Your task to perform on an android device: move an email to a new category in the gmail app Image 0: 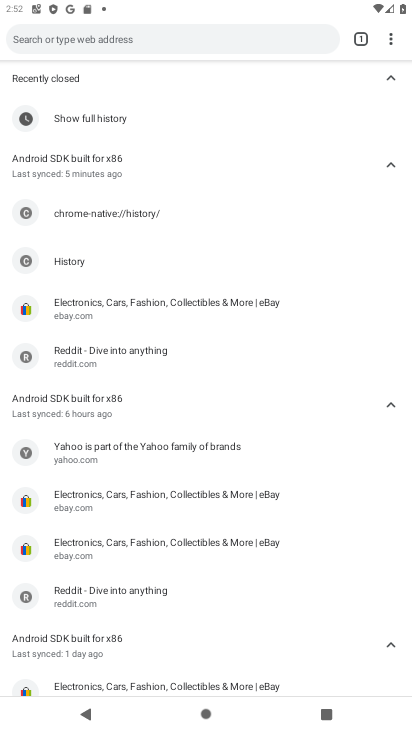
Step 0: press home button
Your task to perform on an android device: move an email to a new category in the gmail app Image 1: 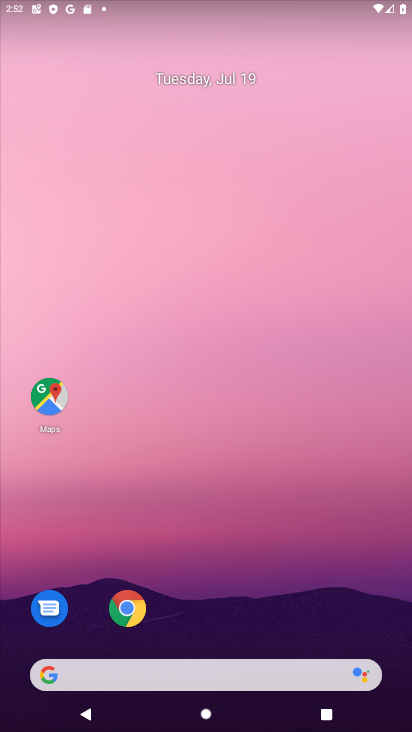
Step 1: drag from (345, 611) to (183, 49)
Your task to perform on an android device: move an email to a new category in the gmail app Image 2: 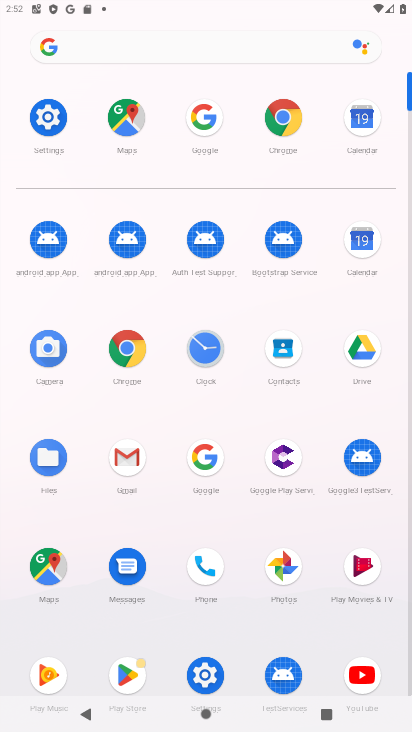
Step 2: click (124, 456)
Your task to perform on an android device: move an email to a new category in the gmail app Image 3: 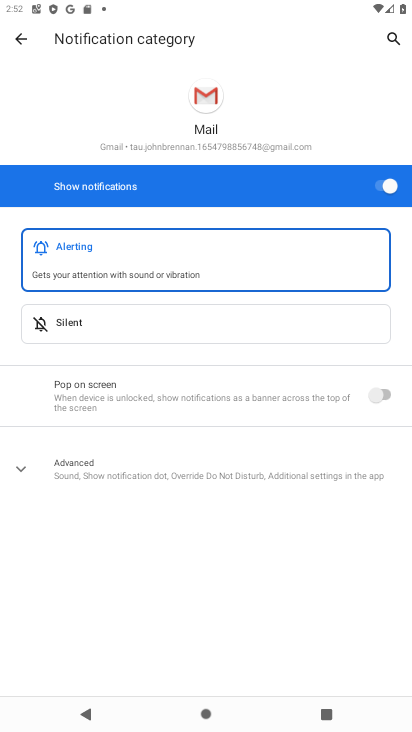
Step 3: click (23, 33)
Your task to perform on an android device: move an email to a new category in the gmail app Image 4: 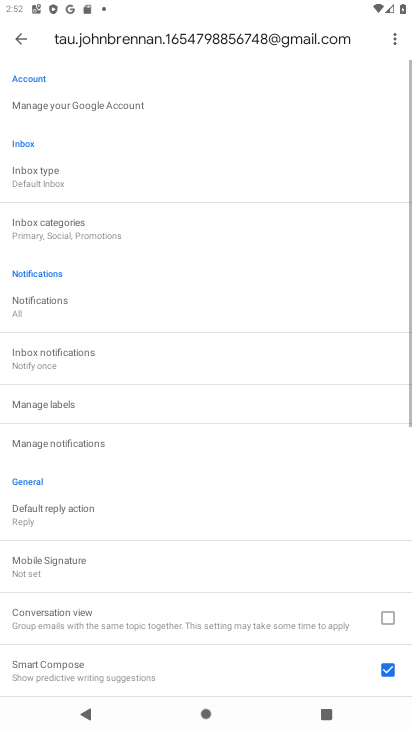
Step 4: click (24, 36)
Your task to perform on an android device: move an email to a new category in the gmail app Image 5: 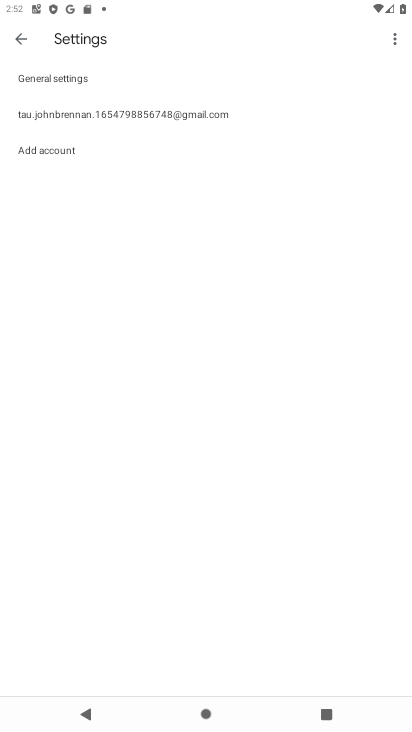
Step 5: click (24, 36)
Your task to perform on an android device: move an email to a new category in the gmail app Image 6: 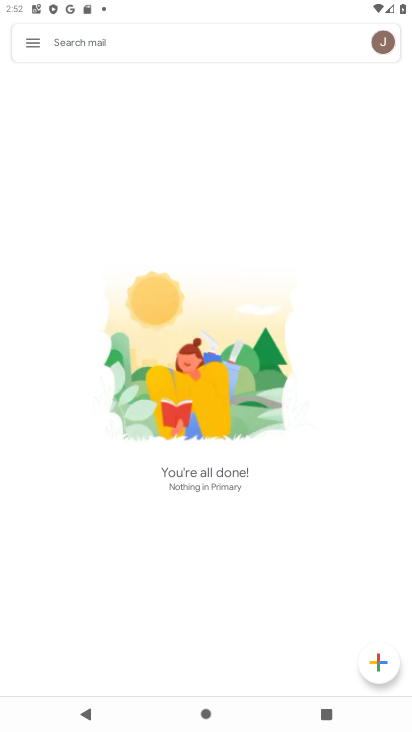
Step 6: click (24, 36)
Your task to perform on an android device: move an email to a new category in the gmail app Image 7: 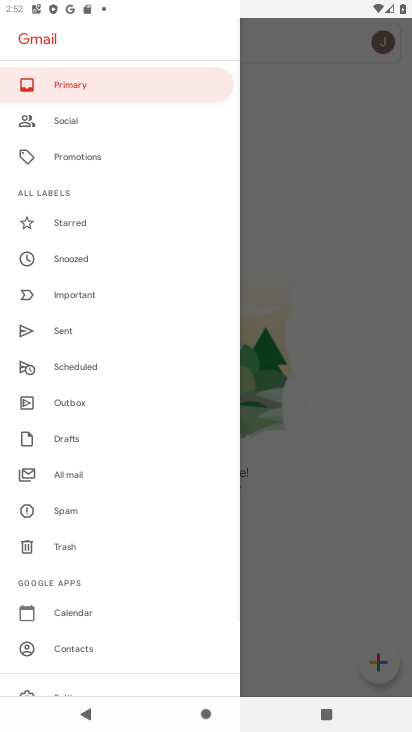
Step 7: click (82, 443)
Your task to perform on an android device: move an email to a new category in the gmail app Image 8: 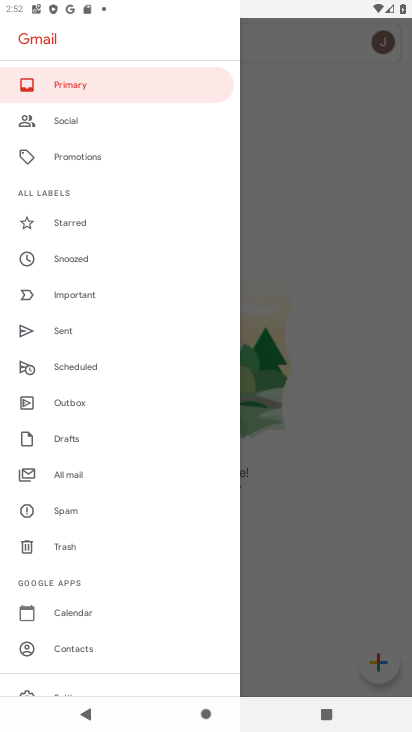
Step 8: click (63, 466)
Your task to perform on an android device: move an email to a new category in the gmail app Image 9: 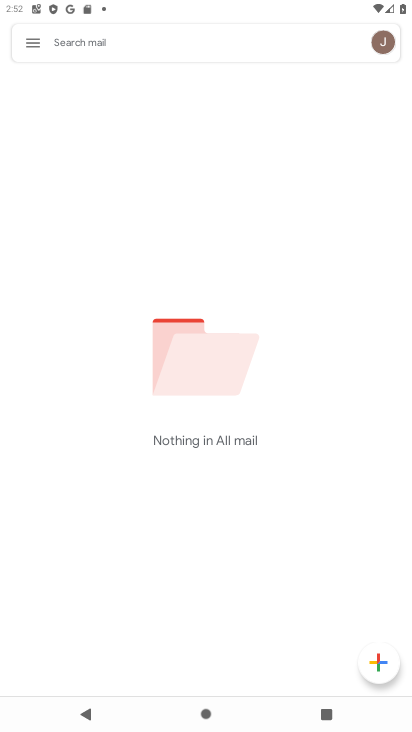
Step 9: task complete